Your task to perform on an android device: open app "Nova Launcher" (install if not already installed) and go to login screen Image 0: 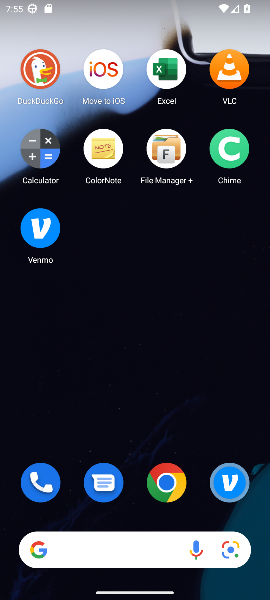
Step 0: drag from (136, 512) to (148, 116)
Your task to perform on an android device: open app "Nova Launcher" (install if not already installed) and go to login screen Image 1: 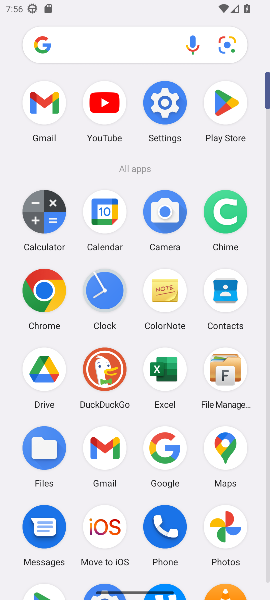
Step 1: drag from (118, 504) to (119, 234)
Your task to perform on an android device: open app "Nova Launcher" (install if not already installed) and go to login screen Image 2: 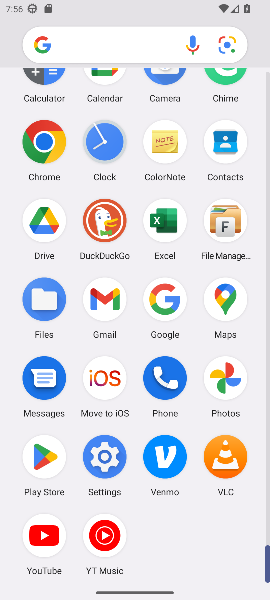
Step 2: click (42, 458)
Your task to perform on an android device: open app "Nova Launcher" (install if not already installed) and go to login screen Image 3: 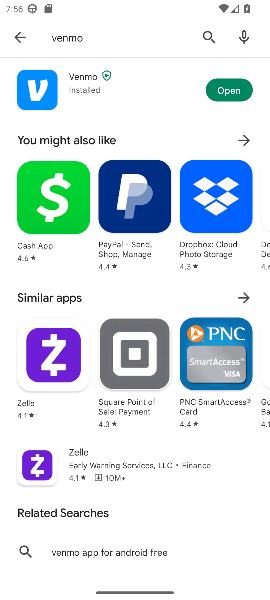
Step 3: click (122, 45)
Your task to perform on an android device: open app "Nova Launcher" (install if not already installed) and go to login screen Image 4: 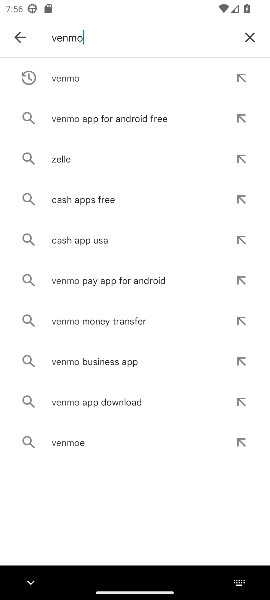
Step 4: click (252, 42)
Your task to perform on an android device: open app "Nova Launcher" (install if not already installed) and go to login screen Image 5: 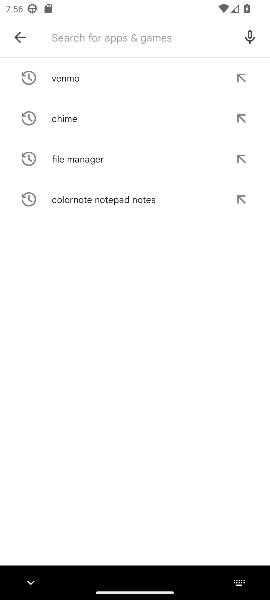
Step 5: type "Nova launcher"
Your task to perform on an android device: open app "Nova Launcher" (install if not already installed) and go to login screen Image 6: 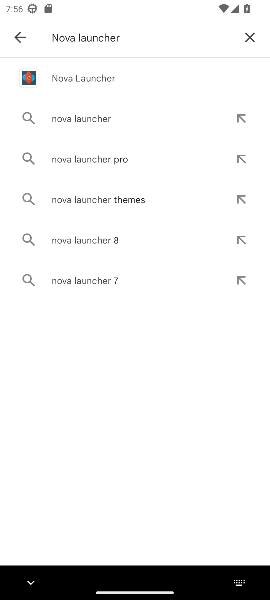
Step 6: click (96, 79)
Your task to perform on an android device: open app "Nova Launcher" (install if not already installed) and go to login screen Image 7: 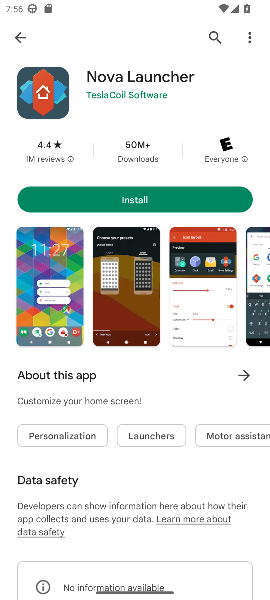
Step 7: click (152, 192)
Your task to perform on an android device: open app "Nova Launcher" (install if not already installed) and go to login screen Image 8: 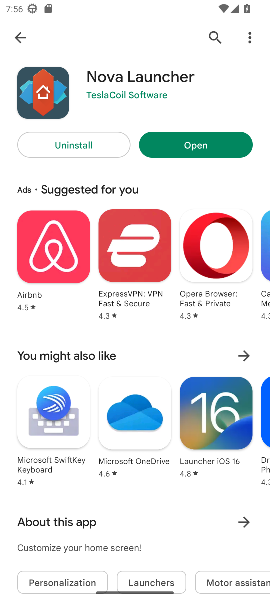
Step 8: click (206, 144)
Your task to perform on an android device: open app "Nova Launcher" (install if not already installed) and go to login screen Image 9: 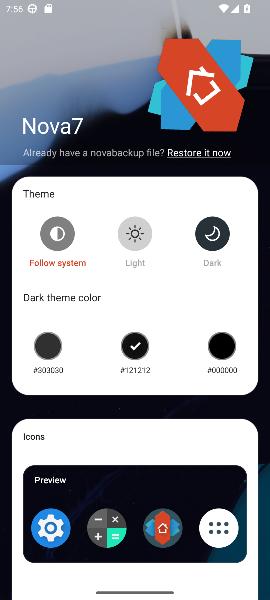
Step 9: task complete